Your task to perform on an android device: check battery use Image 0: 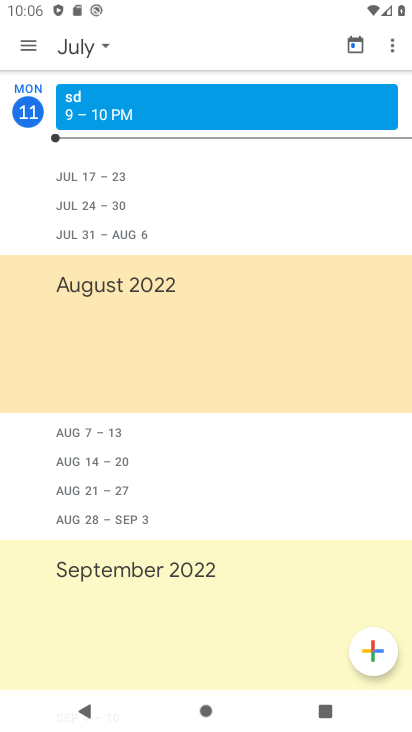
Step 0: press home button
Your task to perform on an android device: check battery use Image 1: 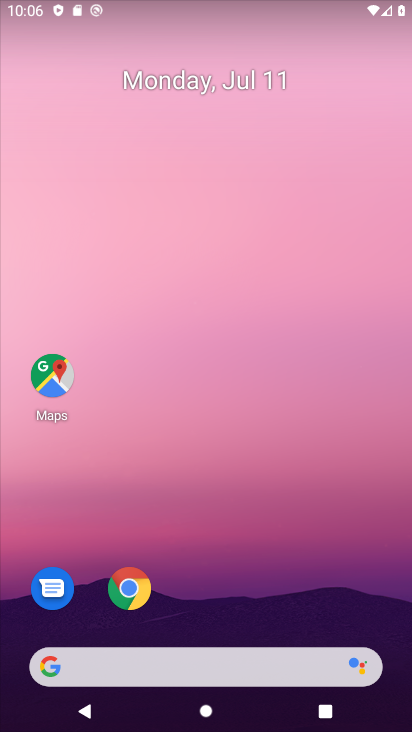
Step 1: drag from (144, 669) to (217, 240)
Your task to perform on an android device: check battery use Image 2: 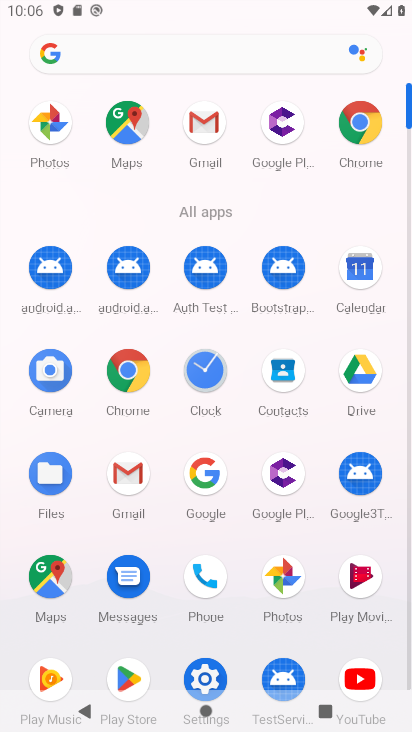
Step 2: click (194, 249)
Your task to perform on an android device: check battery use Image 3: 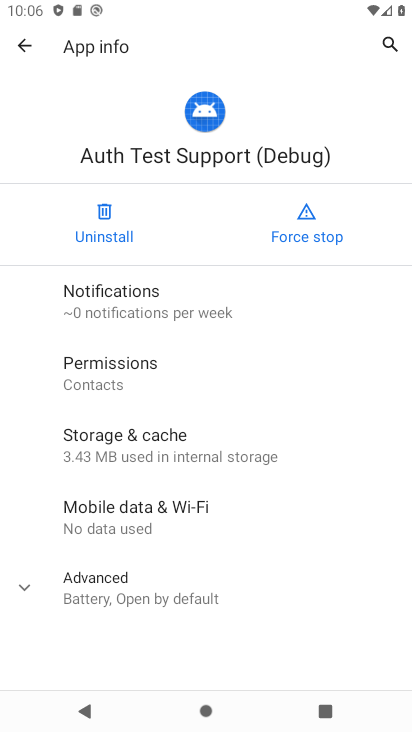
Step 3: click (25, 46)
Your task to perform on an android device: check battery use Image 4: 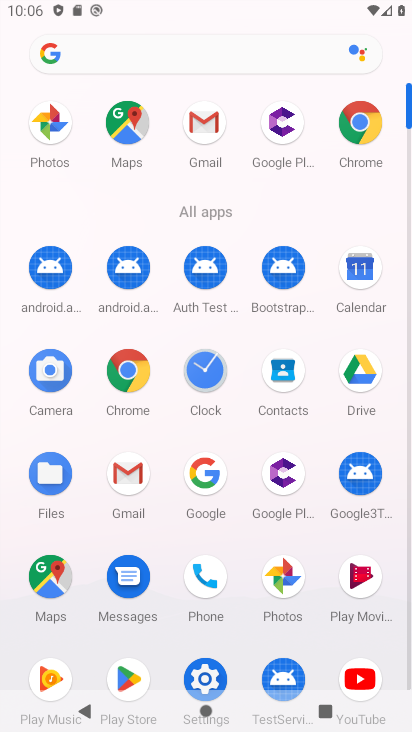
Step 4: click (201, 672)
Your task to perform on an android device: check battery use Image 5: 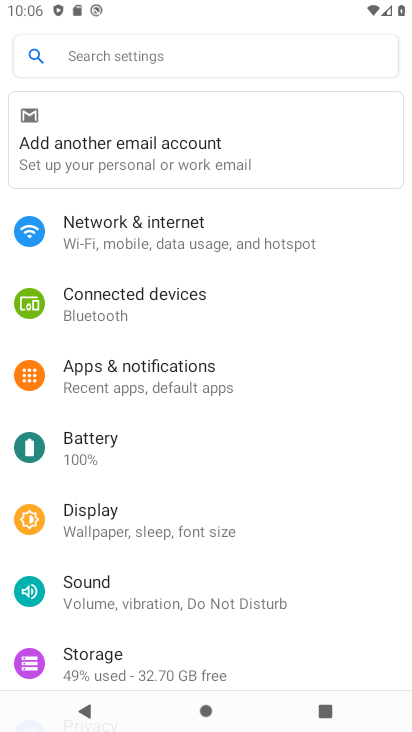
Step 5: click (116, 437)
Your task to perform on an android device: check battery use Image 6: 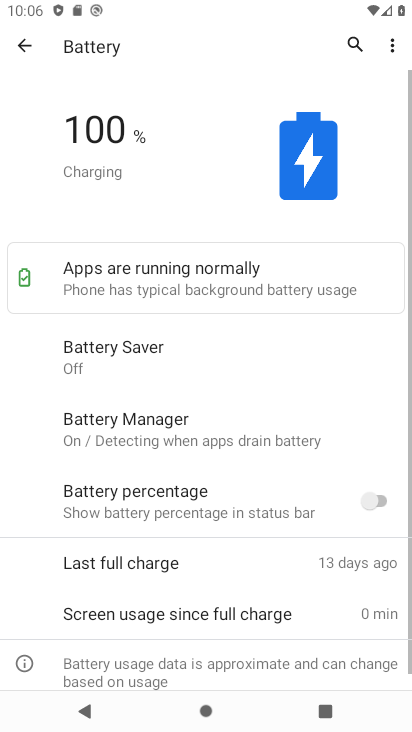
Step 6: click (392, 48)
Your task to perform on an android device: check battery use Image 7: 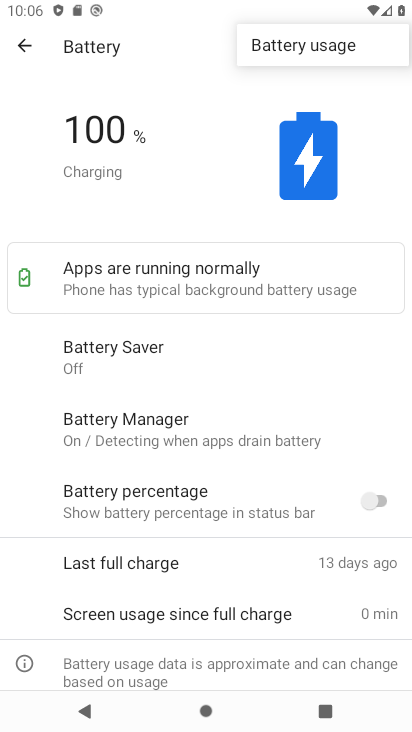
Step 7: click (321, 48)
Your task to perform on an android device: check battery use Image 8: 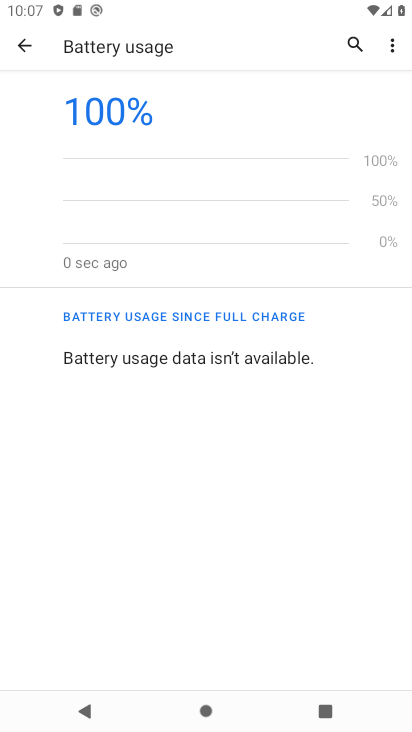
Step 8: task complete